Your task to perform on an android device: Search for vegetarian restaurants on Maps Image 0: 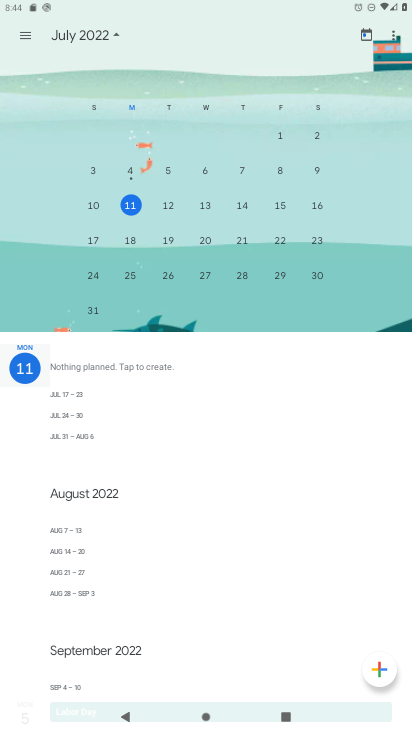
Step 0: press home button
Your task to perform on an android device: Search for vegetarian restaurants on Maps Image 1: 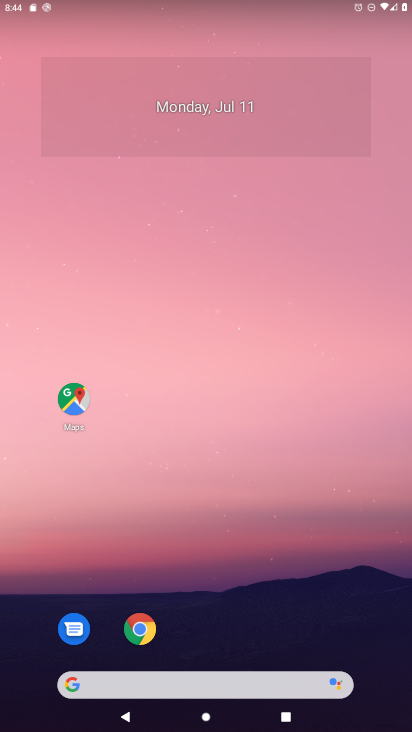
Step 1: click (77, 401)
Your task to perform on an android device: Search for vegetarian restaurants on Maps Image 2: 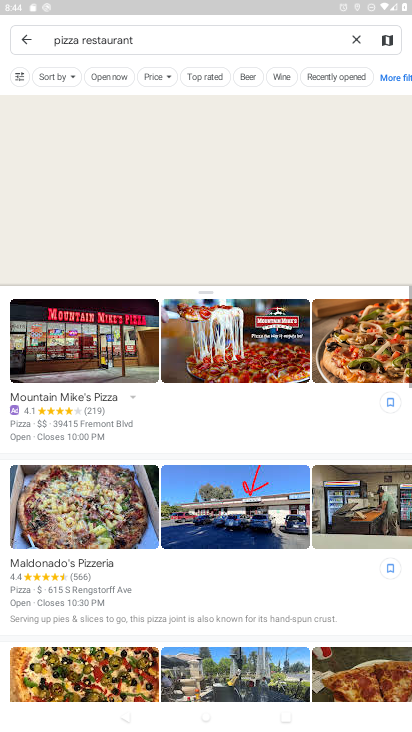
Step 2: click (199, 38)
Your task to perform on an android device: Search for vegetarian restaurants on Maps Image 3: 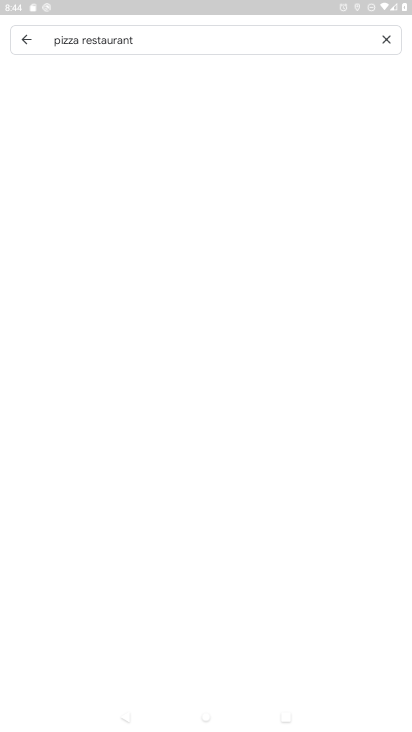
Step 3: click (385, 37)
Your task to perform on an android device: Search for vegetarian restaurants on Maps Image 4: 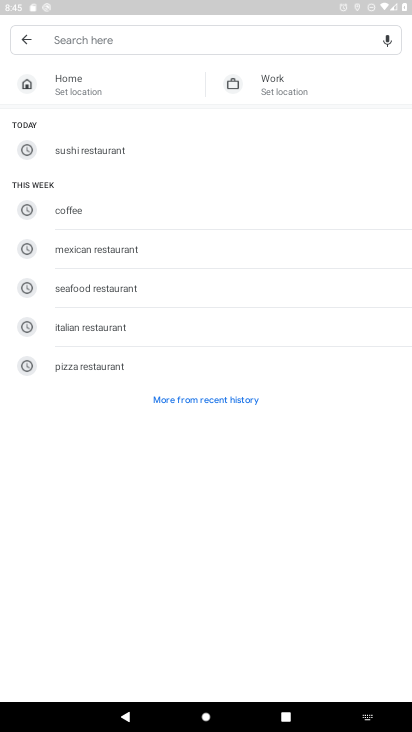
Step 4: type "vegetarian restaurents"
Your task to perform on an android device: Search for vegetarian restaurants on Maps Image 5: 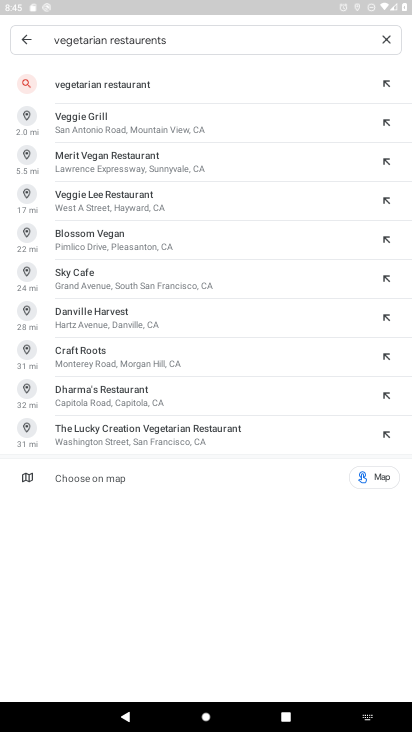
Step 5: click (103, 89)
Your task to perform on an android device: Search for vegetarian restaurants on Maps Image 6: 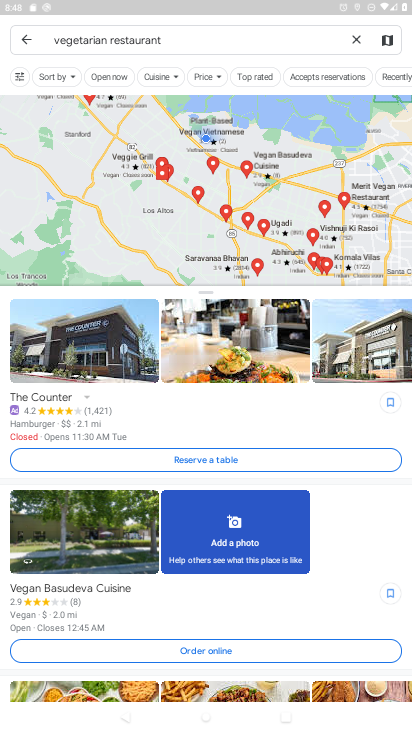
Step 6: task complete